Your task to perform on an android device: turn off location history Image 0: 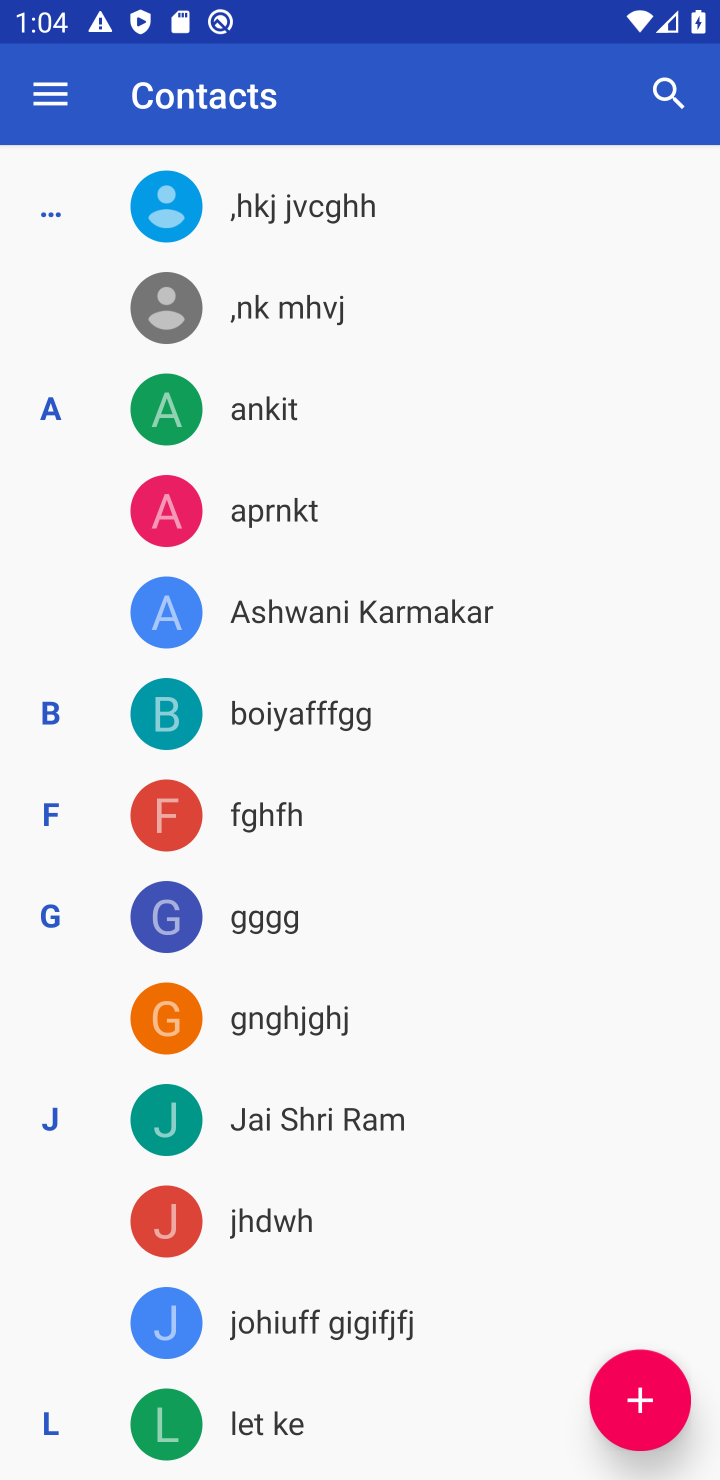
Step 0: press home button
Your task to perform on an android device: turn off location history Image 1: 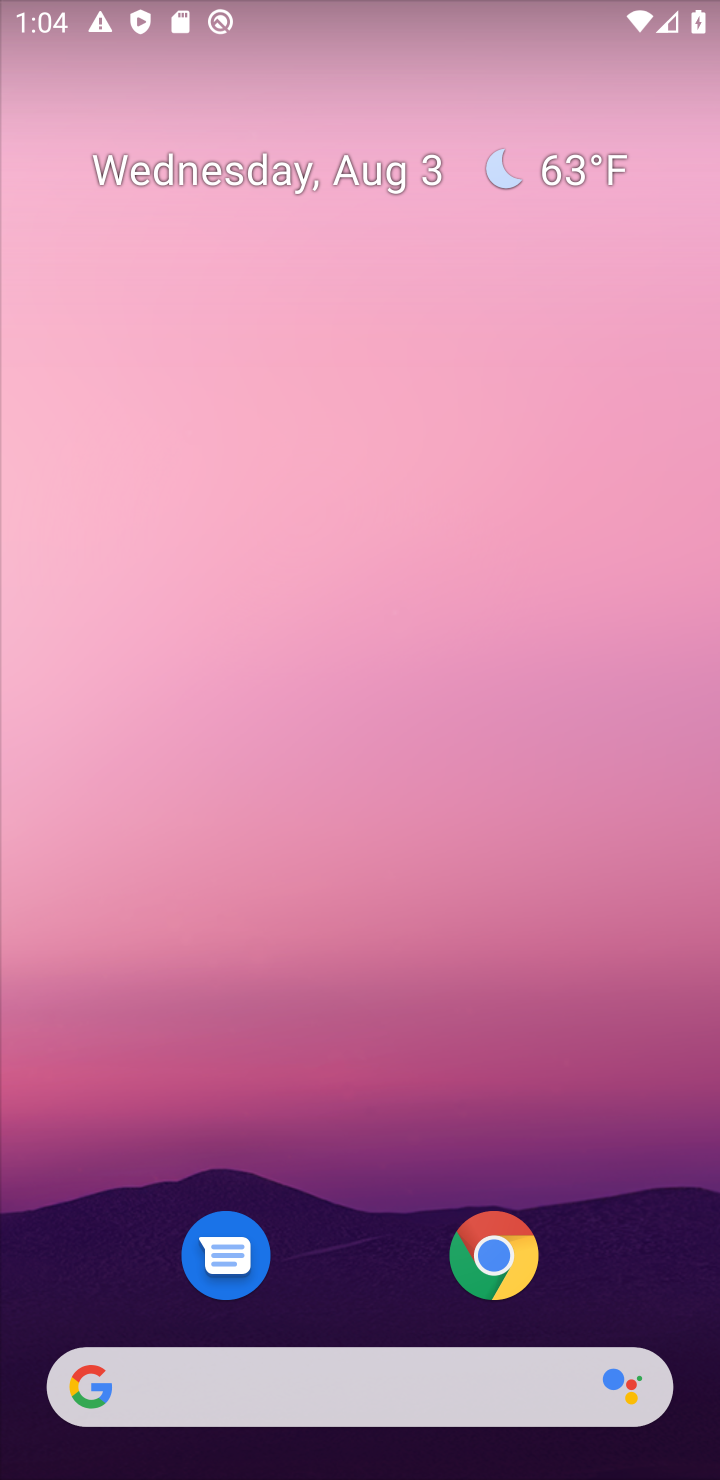
Step 1: drag from (582, 1262) to (444, 242)
Your task to perform on an android device: turn off location history Image 2: 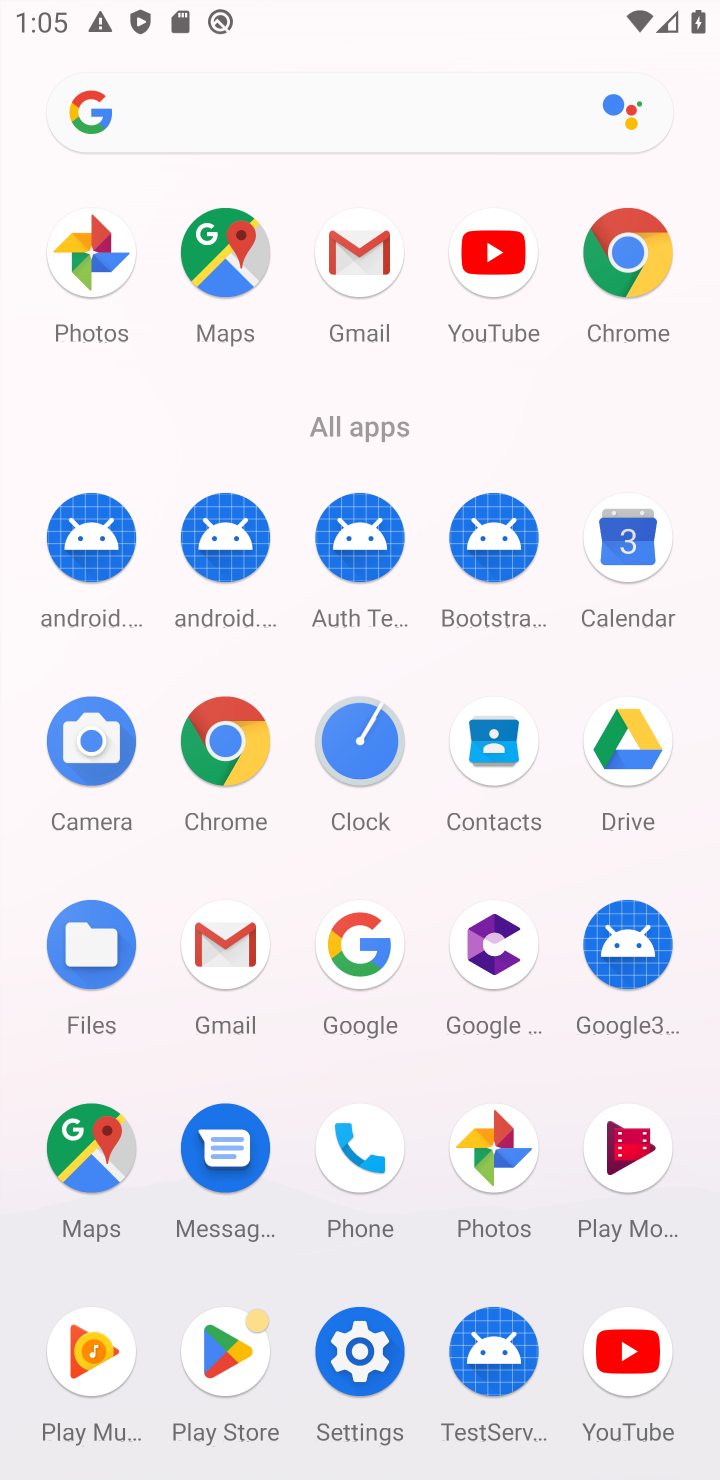
Step 2: click (223, 253)
Your task to perform on an android device: turn off location history Image 3: 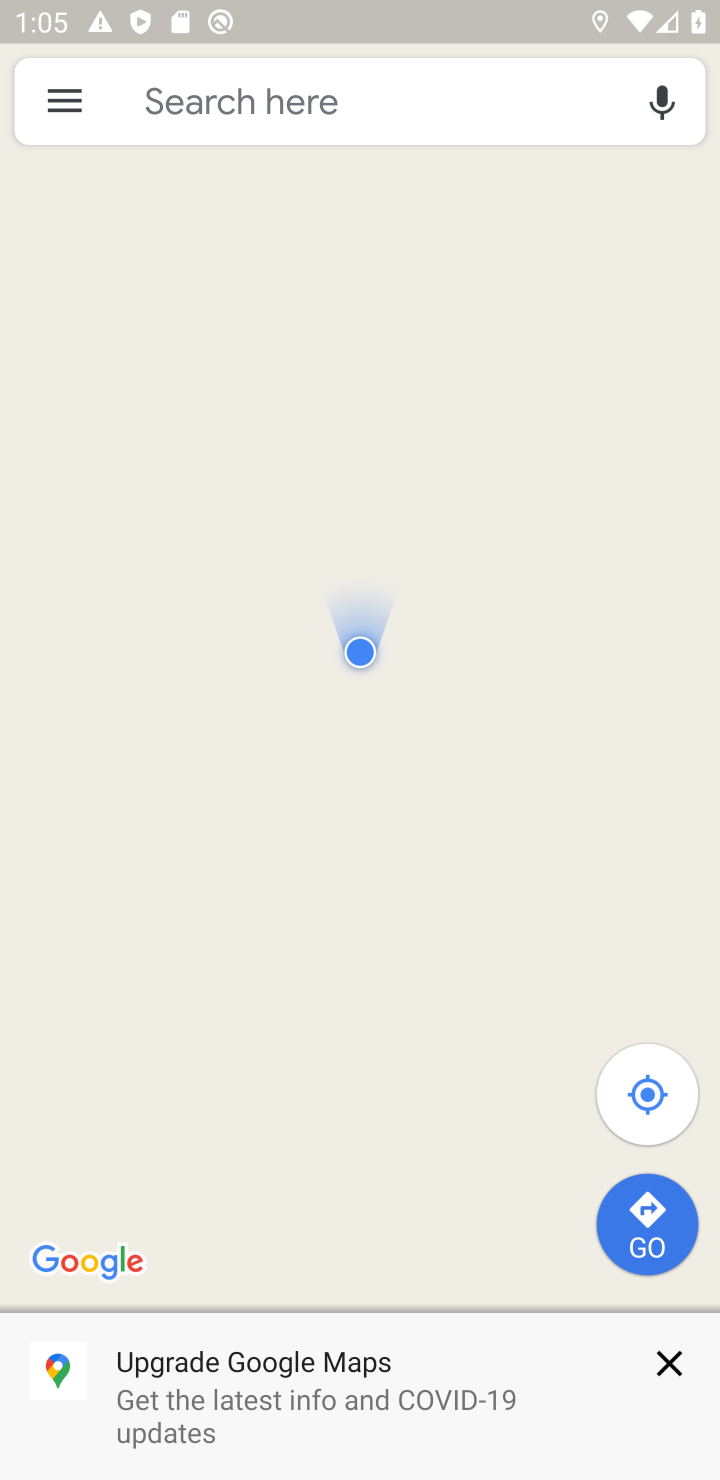
Step 3: click (67, 100)
Your task to perform on an android device: turn off location history Image 4: 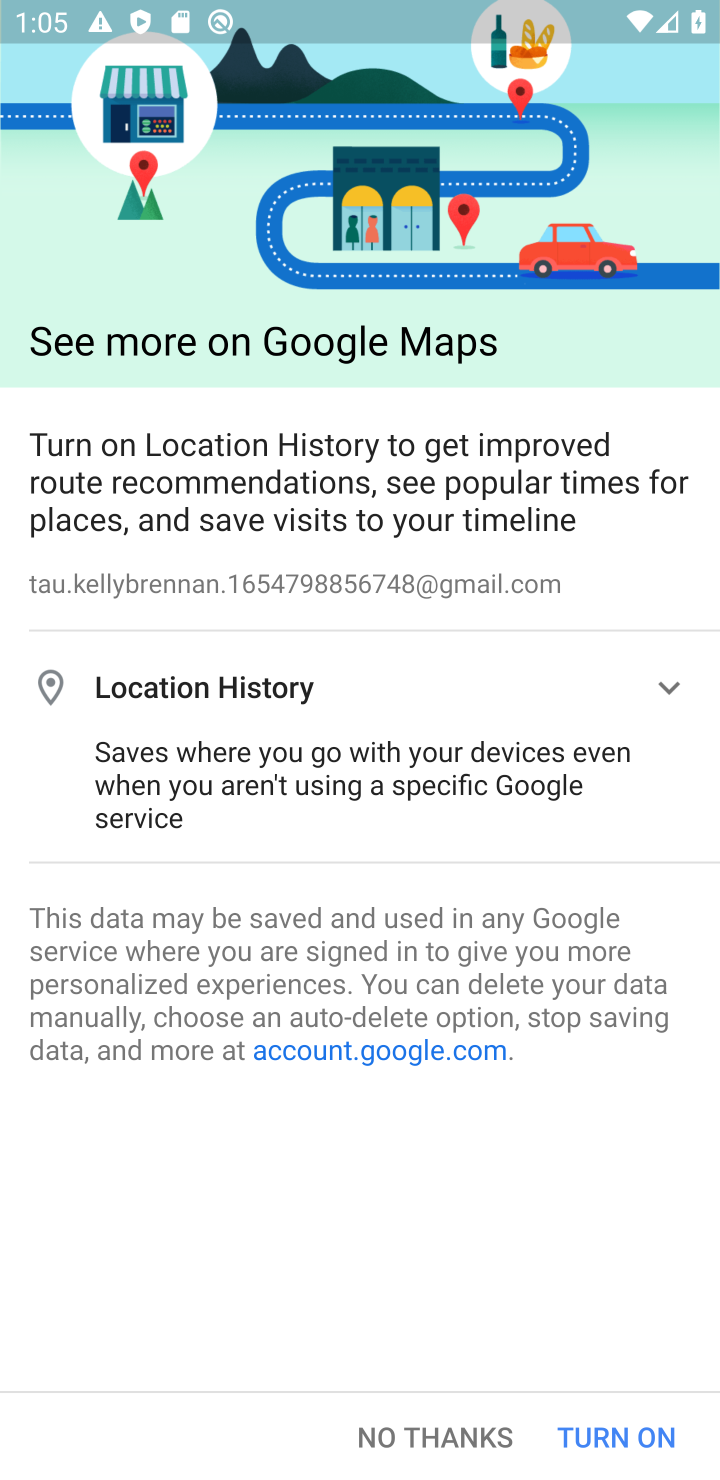
Step 4: click (521, 1434)
Your task to perform on an android device: turn off location history Image 5: 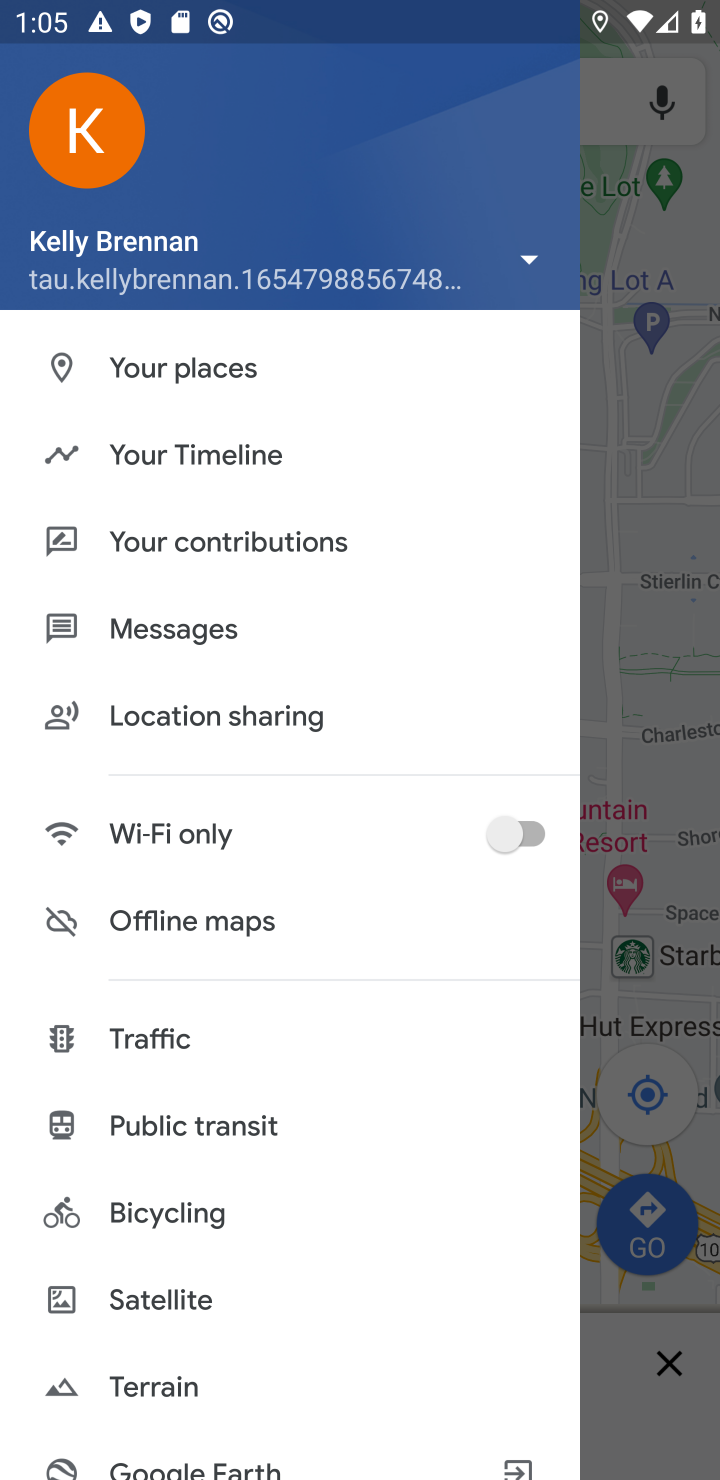
Step 5: click (266, 453)
Your task to perform on an android device: turn off location history Image 6: 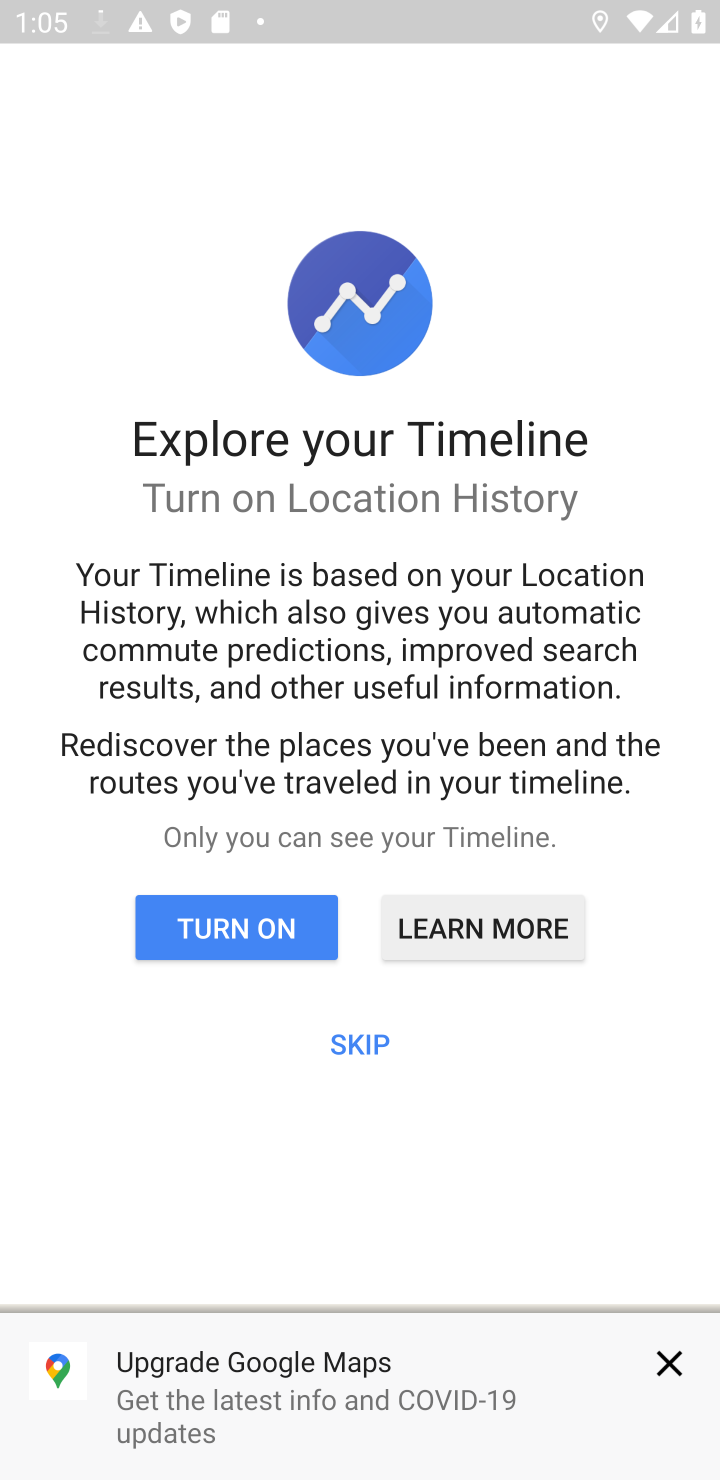
Step 6: click (389, 1010)
Your task to perform on an android device: turn off location history Image 7: 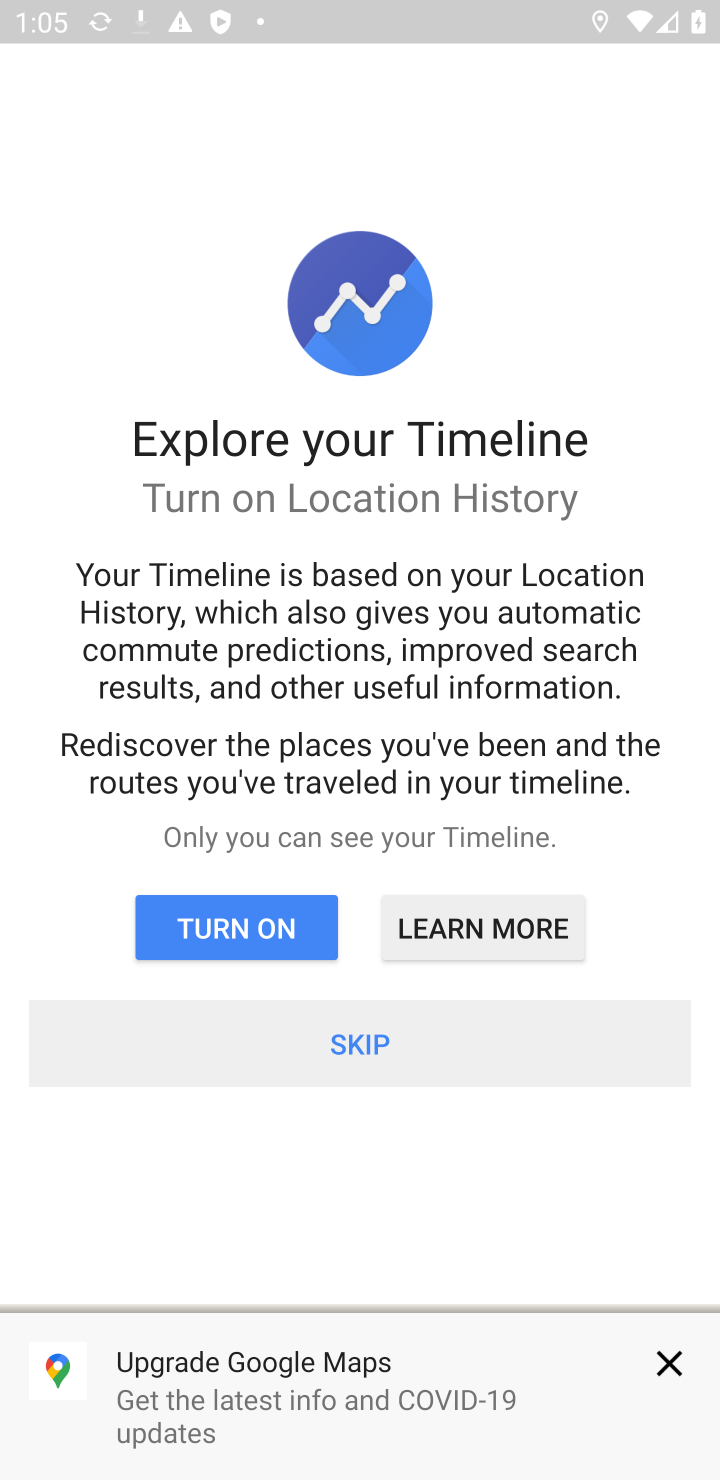
Step 7: click (392, 1034)
Your task to perform on an android device: turn off location history Image 8: 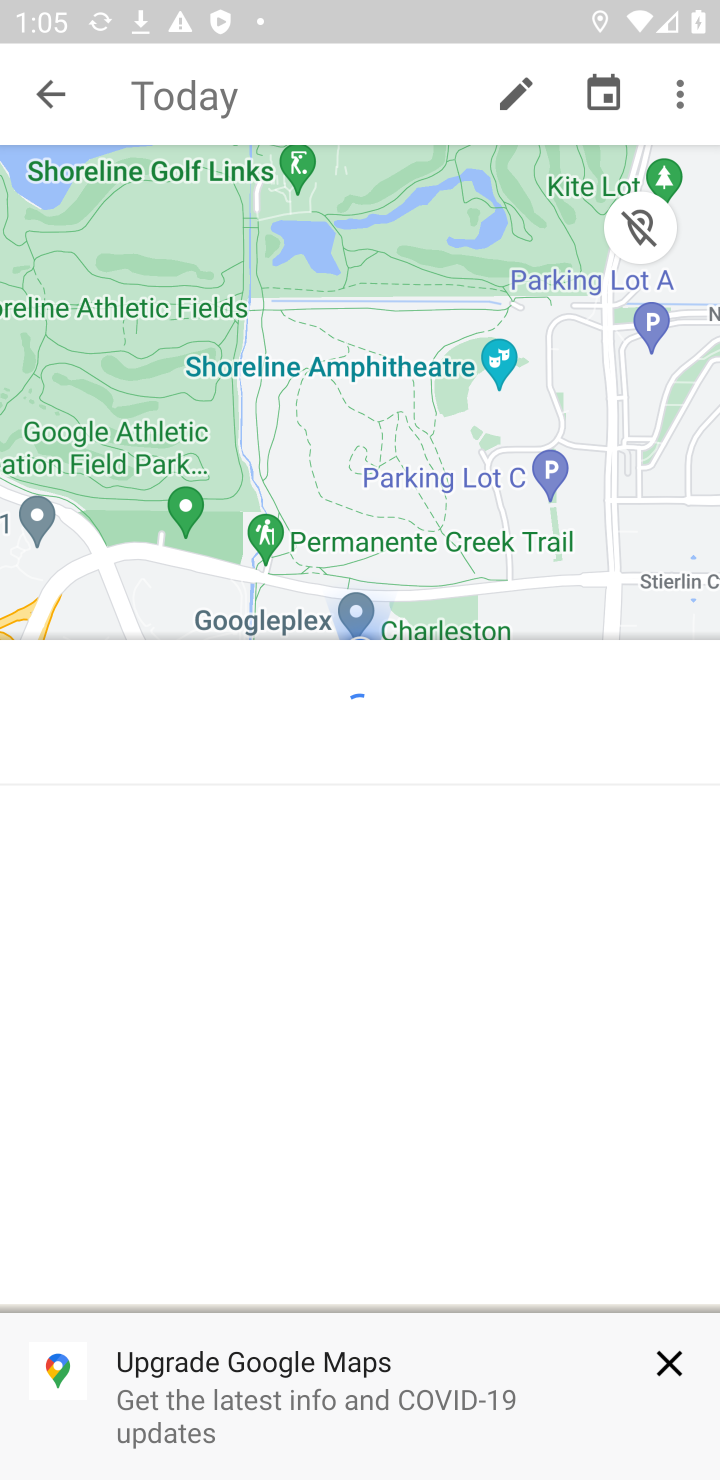
Step 8: click (685, 82)
Your task to perform on an android device: turn off location history Image 9: 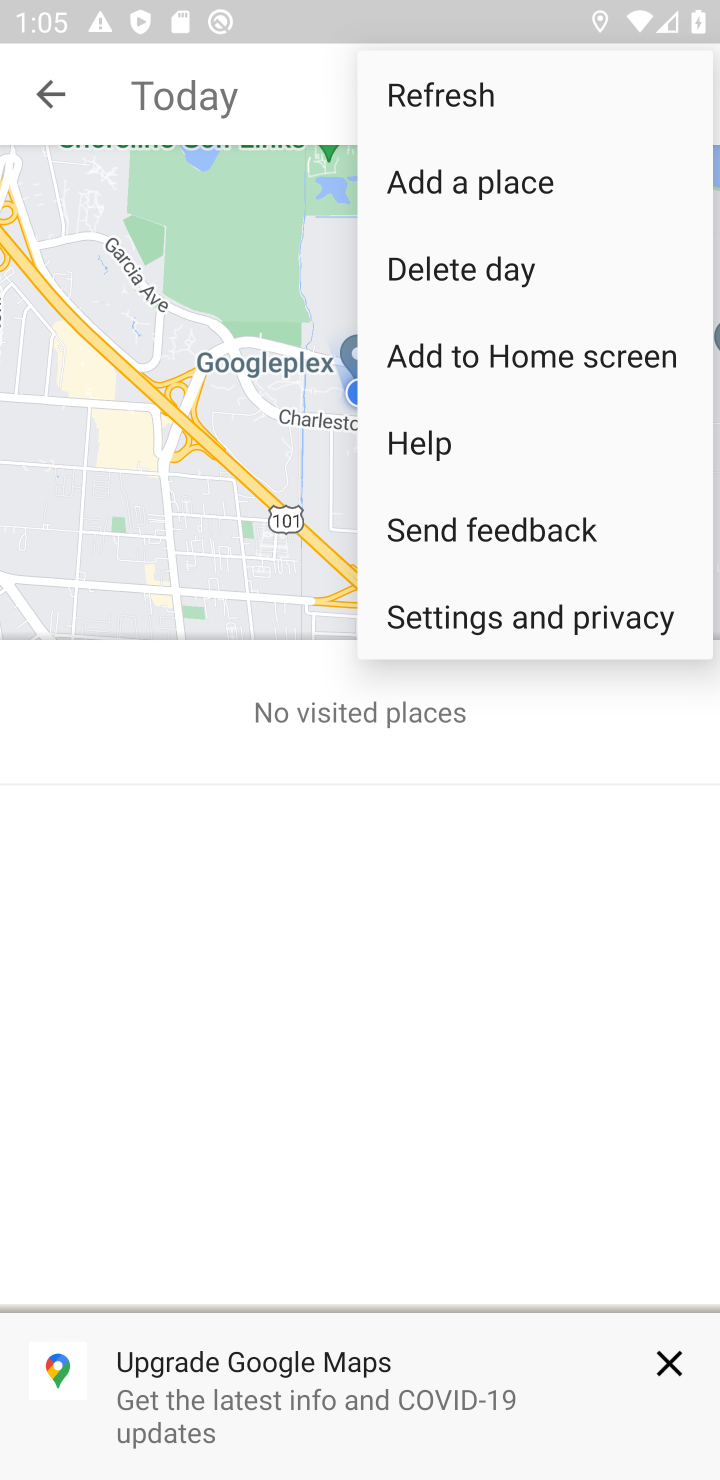
Step 9: click (532, 604)
Your task to perform on an android device: turn off location history Image 10: 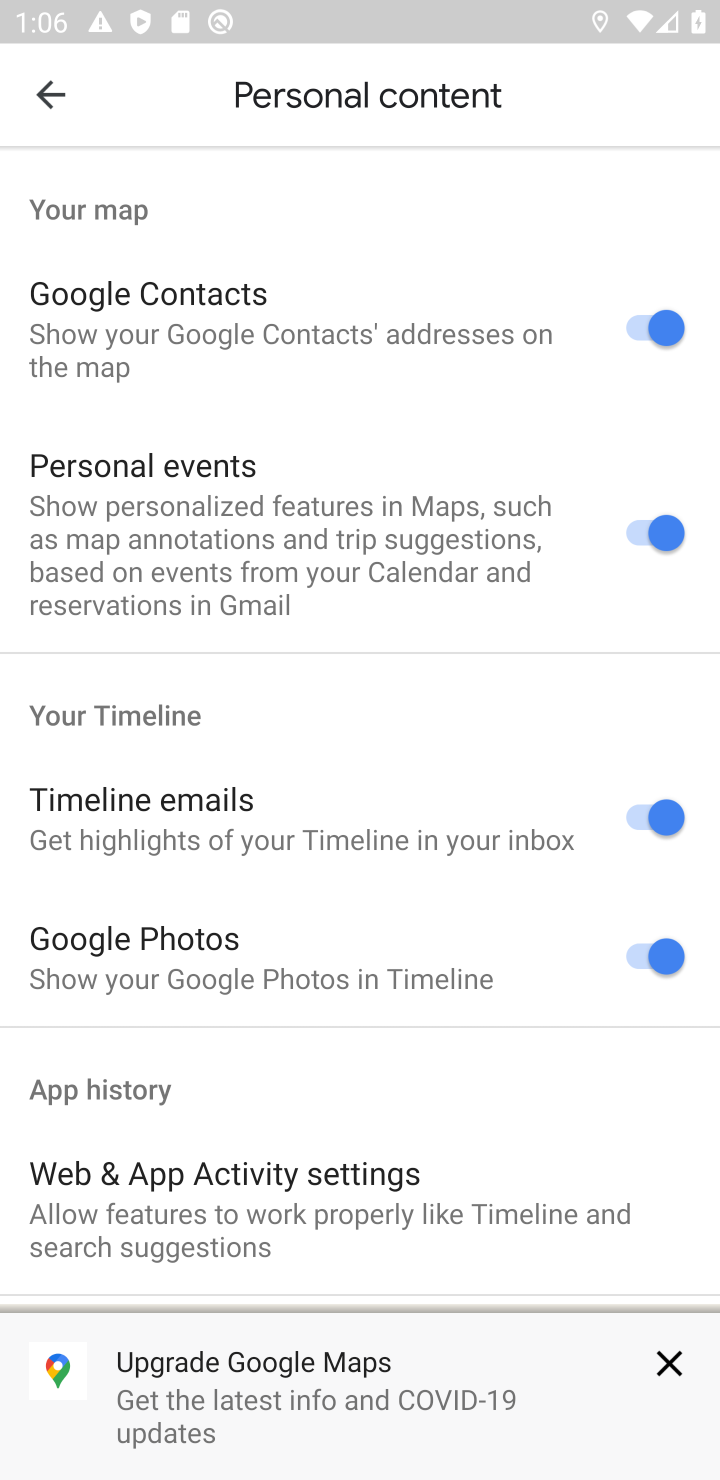
Step 10: task complete